Your task to perform on an android device: What is the recent news? Image 0: 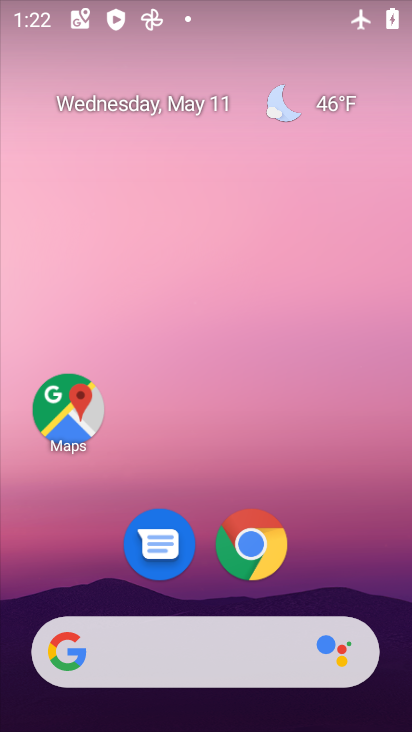
Step 0: drag from (10, 257) to (401, 287)
Your task to perform on an android device: What is the recent news? Image 1: 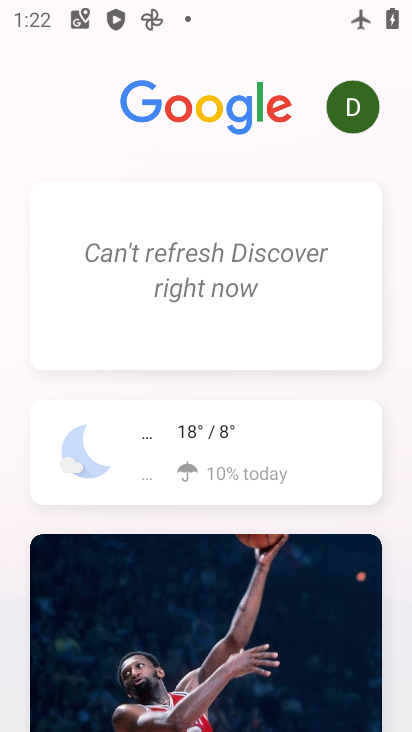
Step 1: task complete